Your task to perform on an android device: What is the recent news? Image 0: 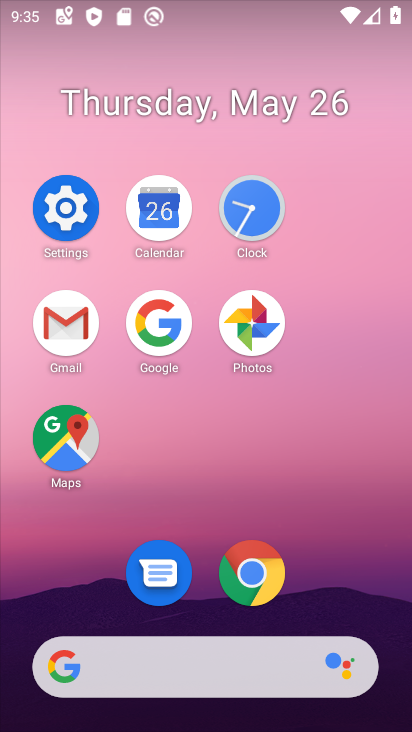
Step 0: click (141, 320)
Your task to perform on an android device: What is the recent news? Image 1: 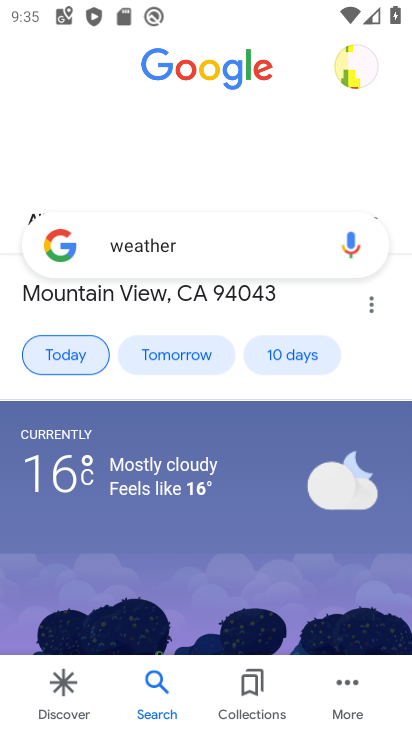
Step 1: click (210, 239)
Your task to perform on an android device: What is the recent news? Image 2: 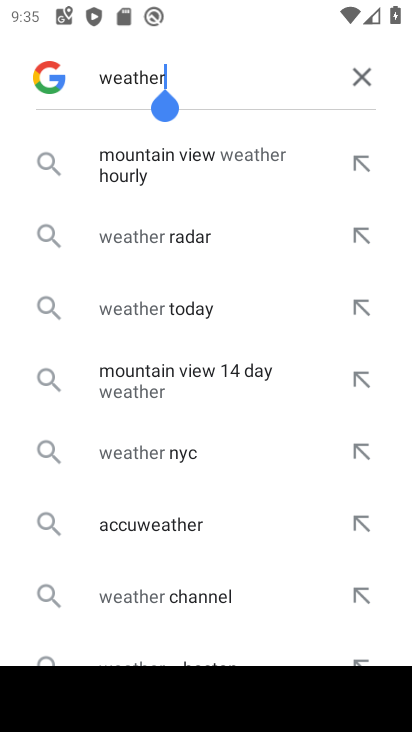
Step 2: drag from (352, 77) to (289, 77)
Your task to perform on an android device: What is the recent news? Image 3: 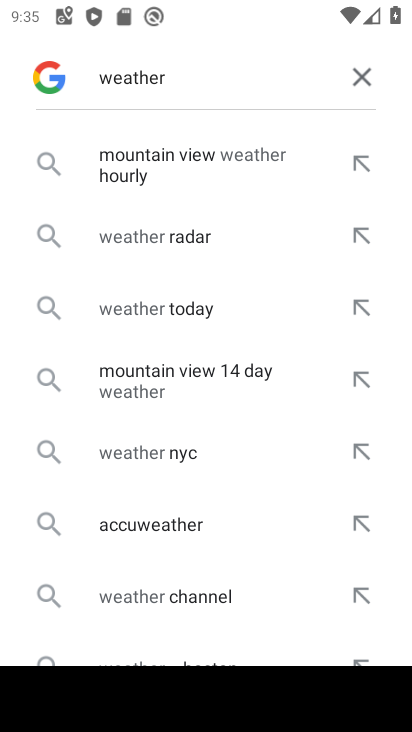
Step 3: click (354, 79)
Your task to perform on an android device: What is the recent news? Image 4: 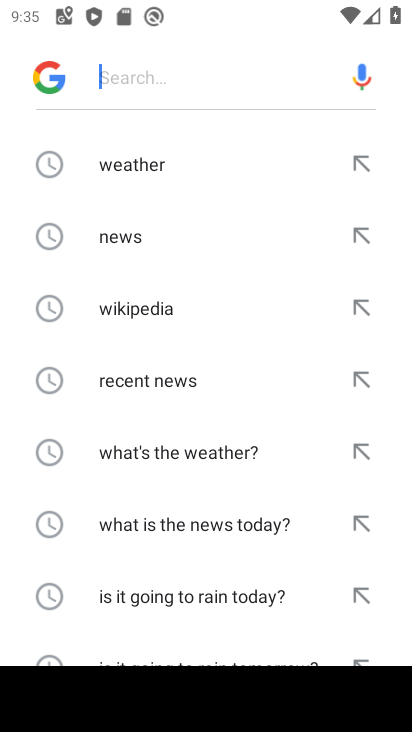
Step 4: click (139, 380)
Your task to perform on an android device: What is the recent news? Image 5: 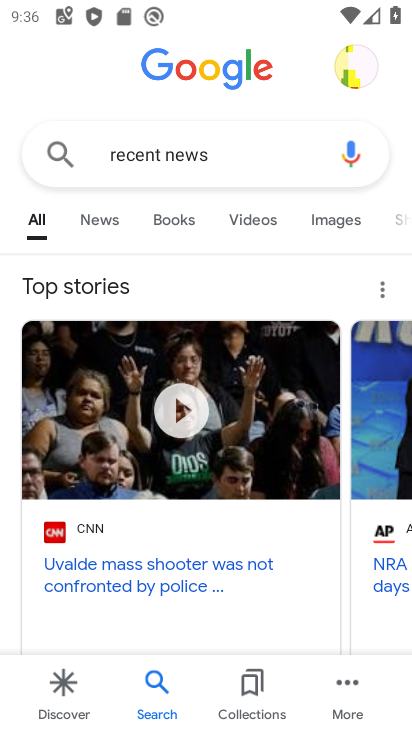
Step 5: task complete